Your task to perform on an android device: Clear the shopping cart on target.com. Add "apple airpods" to the cart on target.com, then select checkout. Image 0: 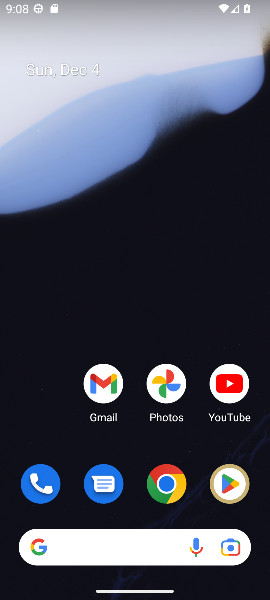
Step 0: click (168, 491)
Your task to perform on an android device: Clear the shopping cart on target.com. Add "apple airpods" to the cart on target.com, then select checkout. Image 1: 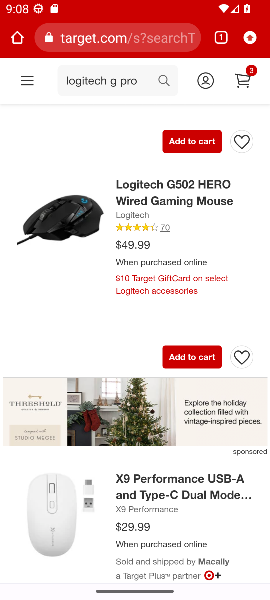
Step 1: click (247, 76)
Your task to perform on an android device: Clear the shopping cart on target.com. Add "apple airpods" to the cart on target.com, then select checkout. Image 2: 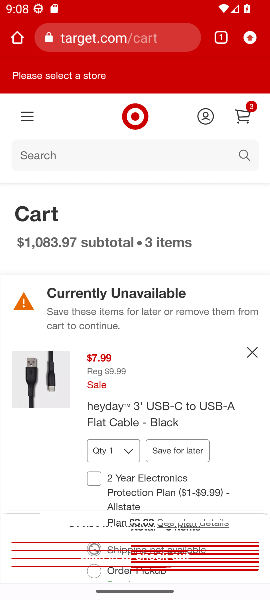
Step 2: click (250, 352)
Your task to perform on an android device: Clear the shopping cart on target.com. Add "apple airpods" to the cart on target.com, then select checkout. Image 3: 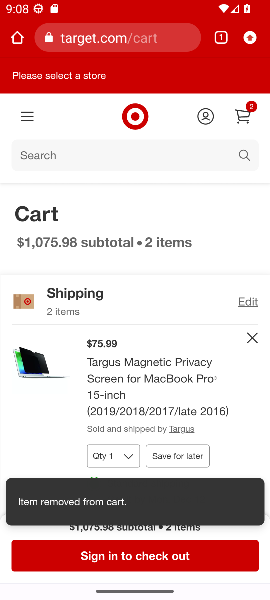
Step 3: click (251, 336)
Your task to perform on an android device: Clear the shopping cart on target.com. Add "apple airpods" to the cart on target.com, then select checkout. Image 4: 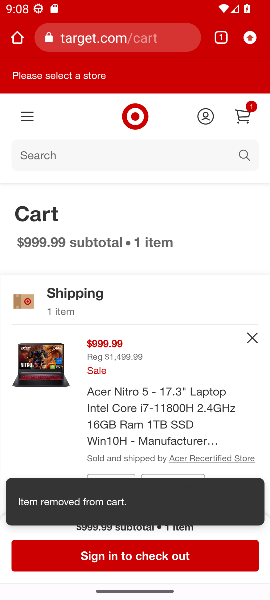
Step 4: click (251, 336)
Your task to perform on an android device: Clear the shopping cart on target.com. Add "apple airpods" to the cart on target.com, then select checkout. Image 5: 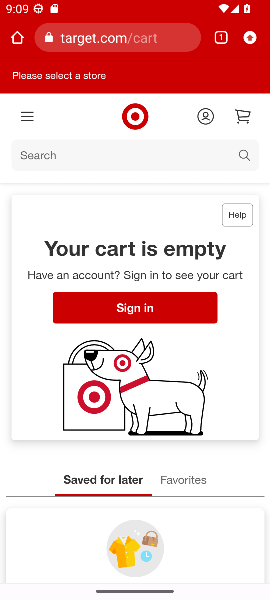
Step 5: click (30, 155)
Your task to perform on an android device: Clear the shopping cart on target.com. Add "apple airpods" to the cart on target.com, then select checkout. Image 6: 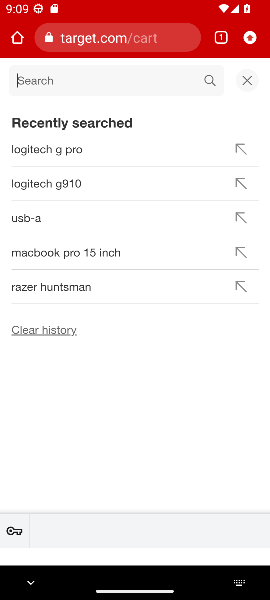
Step 6: type "apple airpods"
Your task to perform on an android device: Clear the shopping cart on target.com. Add "apple airpods" to the cart on target.com, then select checkout. Image 7: 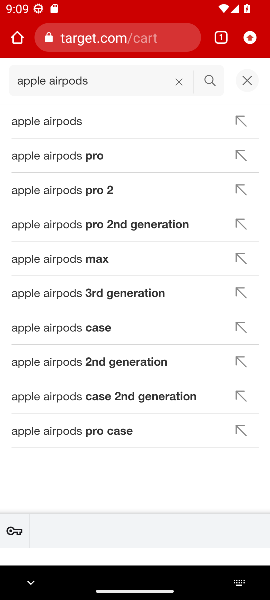
Step 7: click (24, 122)
Your task to perform on an android device: Clear the shopping cart on target.com. Add "apple airpods" to the cart on target.com, then select checkout. Image 8: 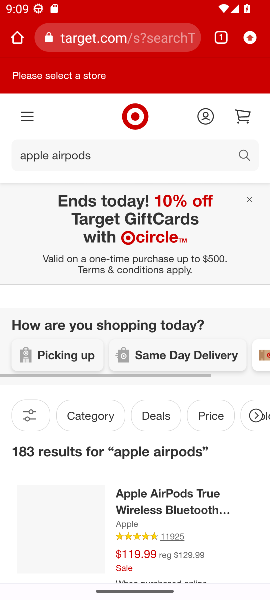
Step 8: drag from (93, 451) to (93, 277)
Your task to perform on an android device: Clear the shopping cart on target.com. Add "apple airpods" to the cart on target.com, then select checkout. Image 9: 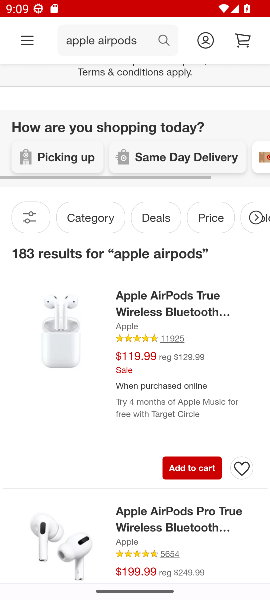
Step 9: click (186, 464)
Your task to perform on an android device: Clear the shopping cart on target.com. Add "apple airpods" to the cart on target.com, then select checkout. Image 10: 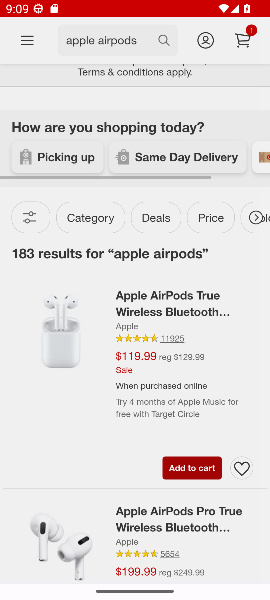
Step 10: click (241, 38)
Your task to perform on an android device: Clear the shopping cart on target.com. Add "apple airpods" to the cart on target.com, then select checkout. Image 11: 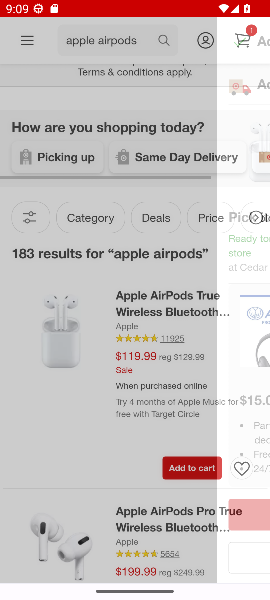
Step 11: click (241, 38)
Your task to perform on an android device: Clear the shopping cart on target.com. Add "apple airpods" to the cart on target.com, then select checkout. Image 12: 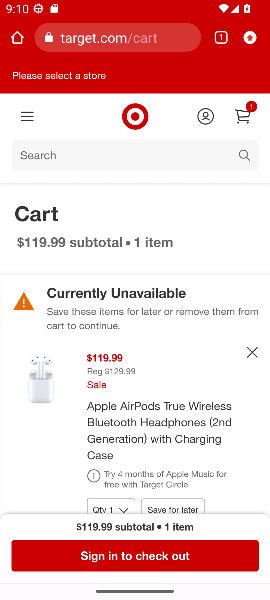
Step 12: click (113, 551)
Your task to perform on an android device: Clear the shopping cart on target.com. Add "apple airpods" to the cart on target.com, then select checkout. Image 13: 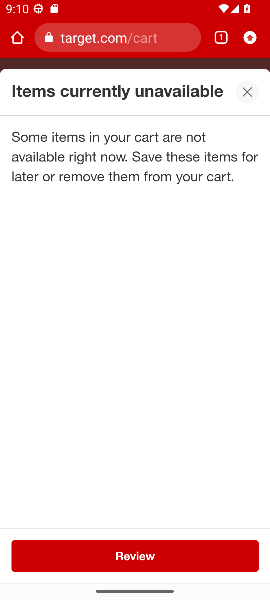
Step 13: task complete